Your task to perform on an android device: toggle notifications settings in the gmail app Image 0: 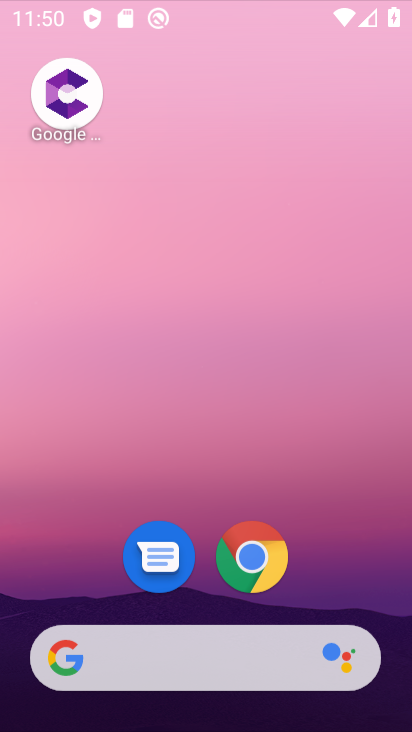
Step 0: drag from (374, 585) to (371, 154)
Your task to perform on an android device: toggle notifications settings in the gmail app Image 1: 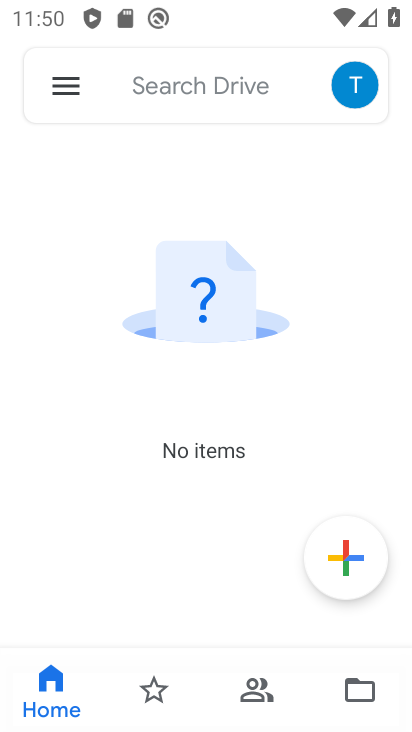
Step 1: press home button
Your task to perform on an android device: toggle notifications settings in the gmail app Image 2: 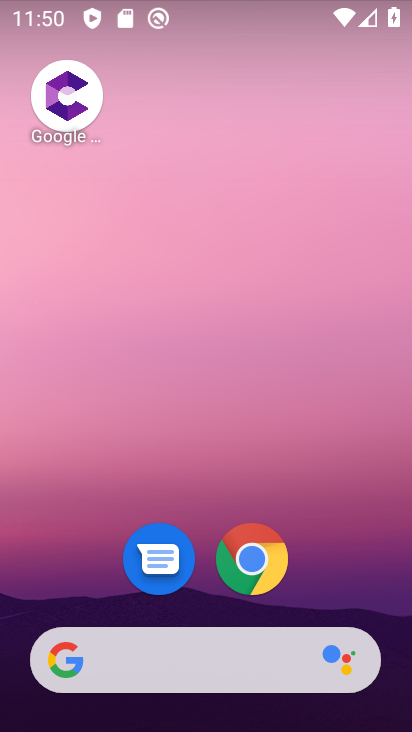
Step 2: drag from (366, 588) to (369, 133)
Your task to perform on an android device: toggle notifications settings in the gmail app Image 3: 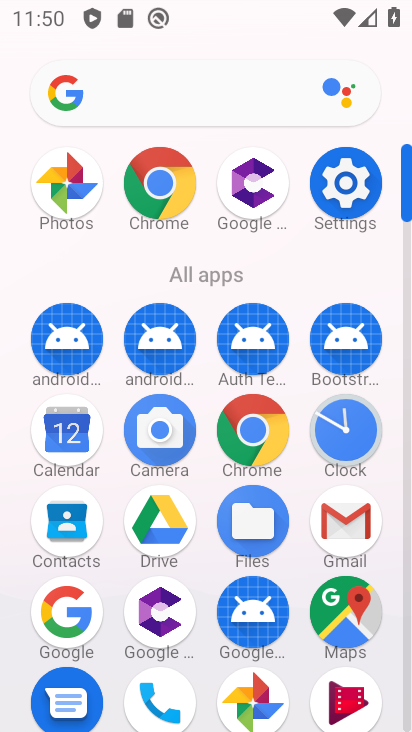
Step 3: click (350, 520)
Your task to perform on an android device: toggle notifications settings in the gmail app Image 4: 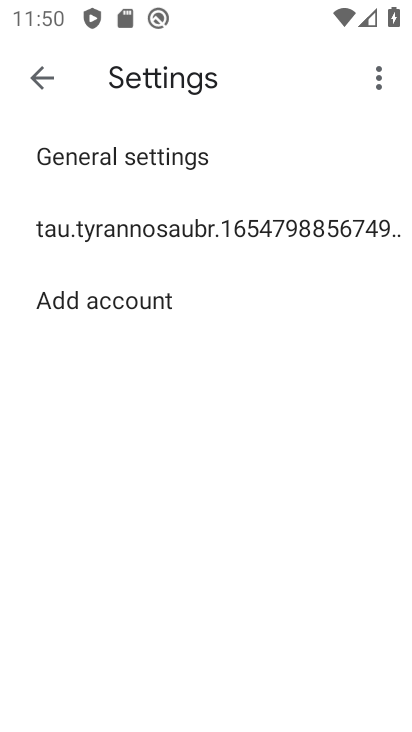
Step 4: click (260, 235)
Your task to perform on an android device: toggle notifications settings in the gmail app Image 5: 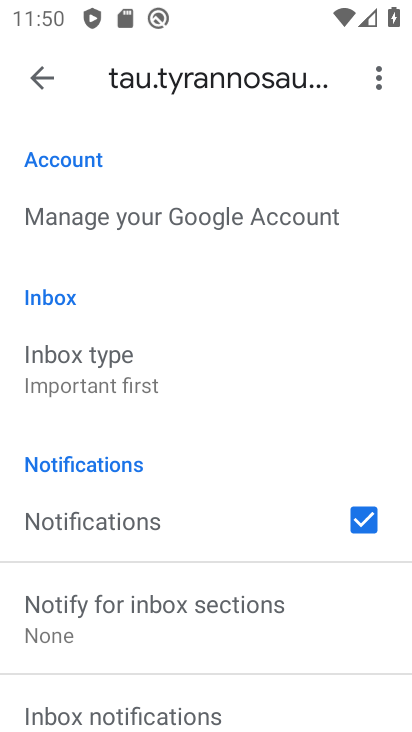
Step 5: drag from (268, 485) to (277, 328)
Your task to perform on an android device: toggle notifications settings in the gmail app Image 6: 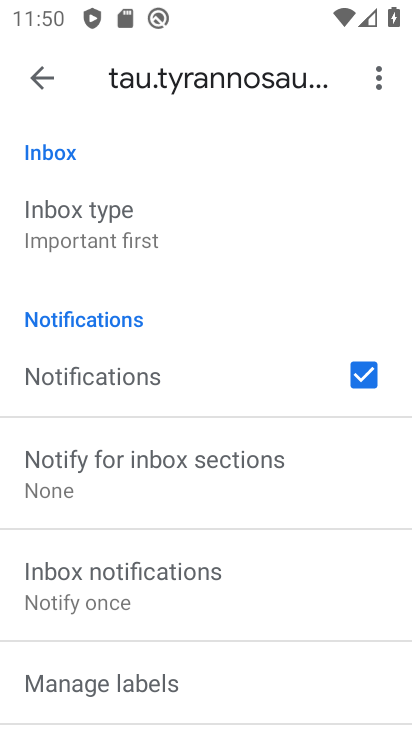
Step 6: drag from (298, 527) to (304, 376)
Your task to perform on an android device: toggle notifications settings in the gmail app Image 7: 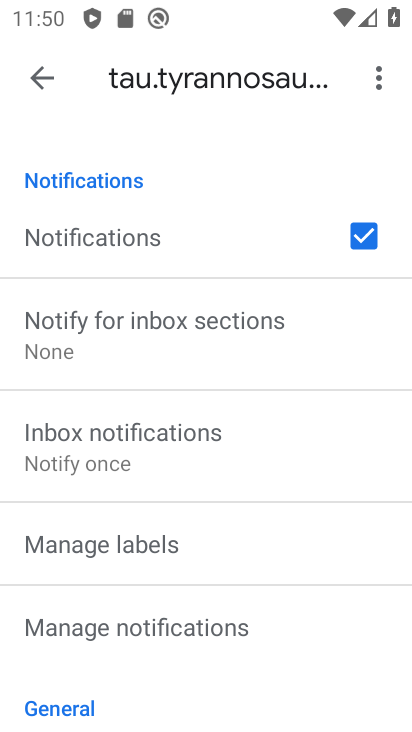
Step 7: drag from (296, 541) to (292, 394)
Your task to perform on an android device: toggle notifications settings in the gmail app Image 8: 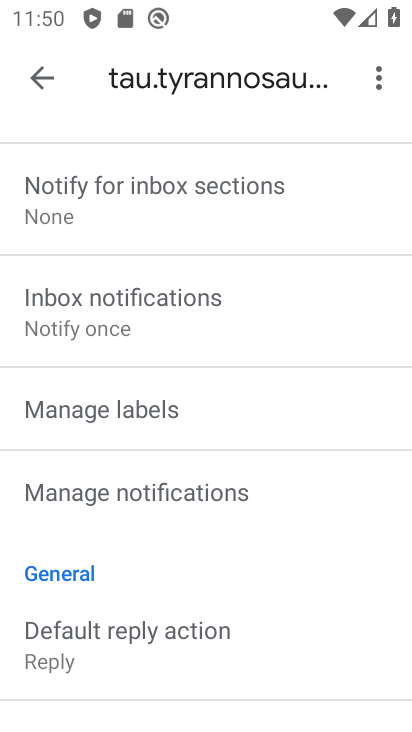
Step 8: drag from (290, 562) to (288, 395)
Your task to perform on an android device: toggle notifications settings in the gmail app Image 9: 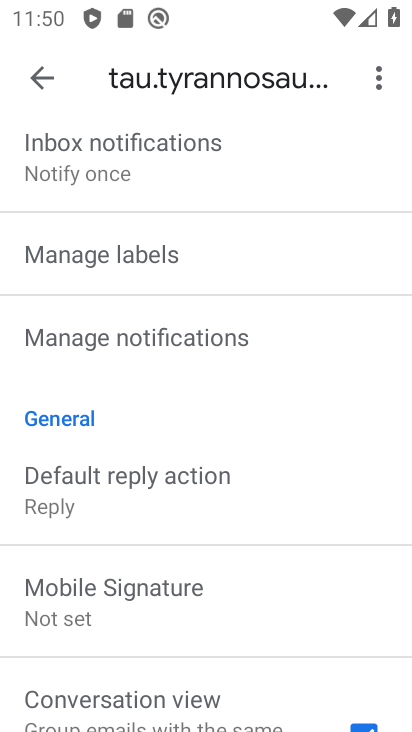
Step 9: drag from (306, 582) to (312, 276)
Your task to perform on an android device: toggle notifications settings in the gmail app Image 10: 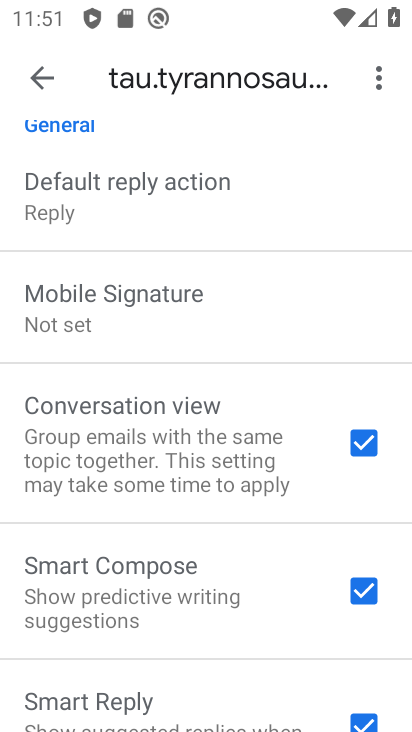
Step 10: drag from (285, 559) to (287, 274)
Your task to perform on an android device: toggle notifications settings in the gmail app Image 11: 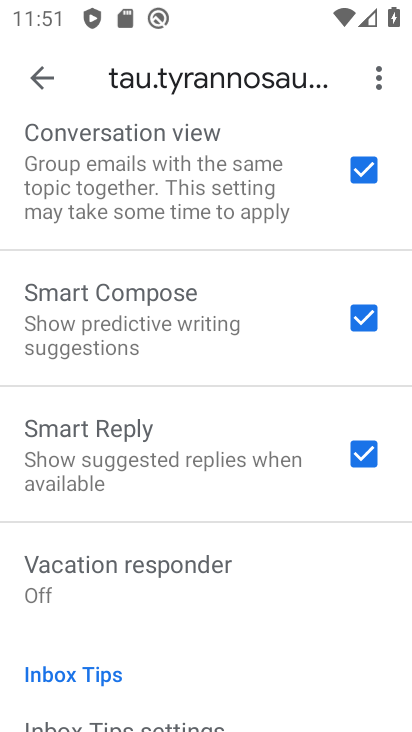
Step 11: drag from (280, 229) to (266, 382)
Your task to perform on an android device: toggle notifications settings in the gmail app Image 12: 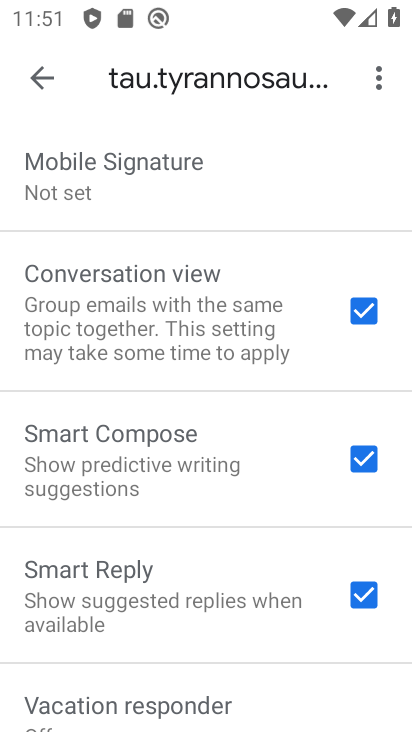
Step 12: drag from (275, 188) to (276, 423)
Your task to perform on an android device: toggle notifications settings in the gmail app Image 13: 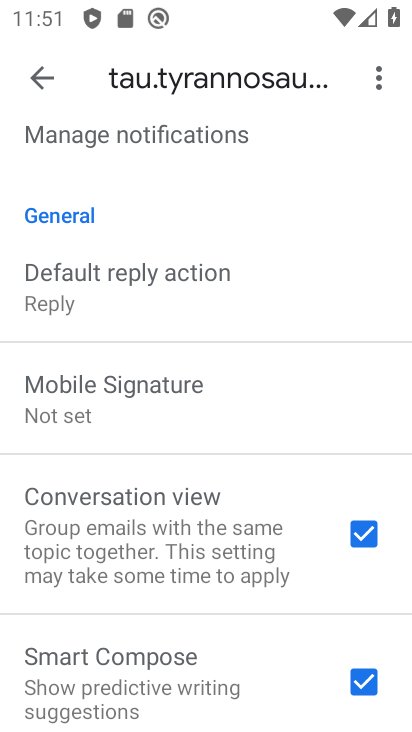
Step 13: drag from (285, 159) to (290, 405)
Your task to perform on an android device: toggle notifications settings in the gmail app Image 14: 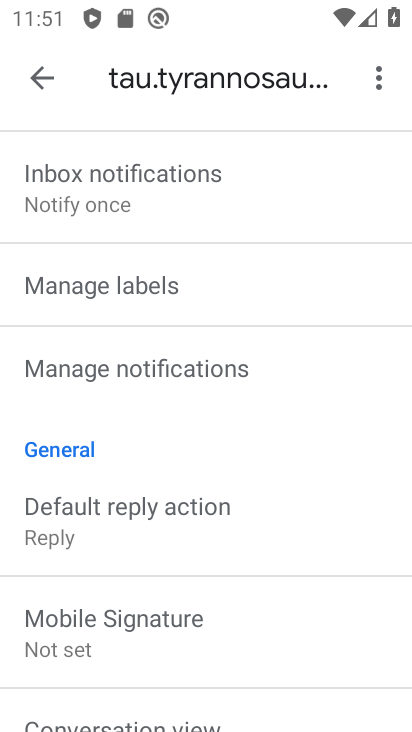
Step 14: drag from (296, 232) to (293, 422)
Your task to perform on an android device: toggle notifications settings in the gmail app Image 15: 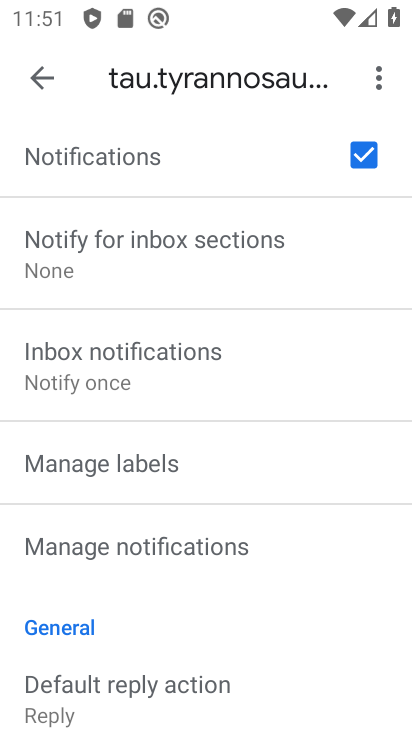
Step 15: drag from (259, 180) to (258, 486)
Your task to perform on an android device: toggle notifications settings in the gmail app Image 16: 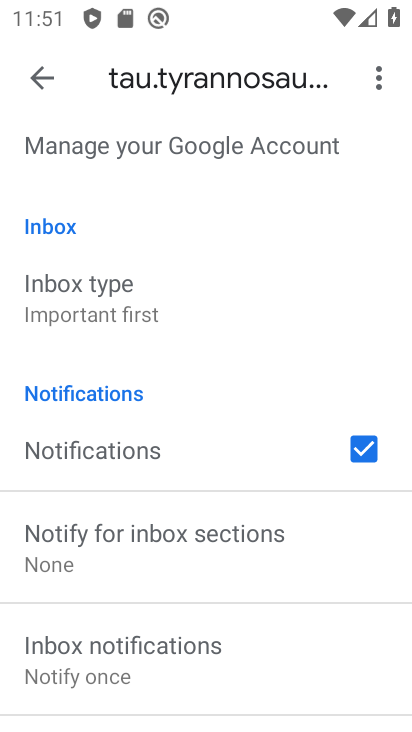
Step 16: drag from (232, 207) to (229, 422)
Your task to perform on an android device: toggle notifications settings in the gmail app Image 17: 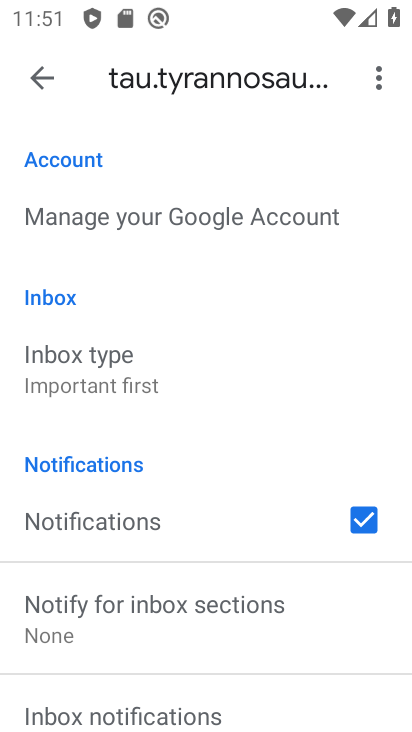
Step 17: drag from (228, 465) to (229, 340)
Your task to perform on an android device: toggle notifications settings in the gmail app Image 18: 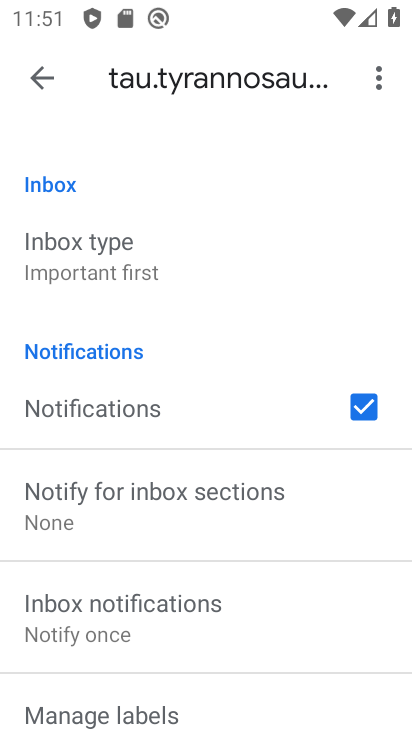
Step 18: drag from (244, 553) to (249, 438)
Your task to perform on an android device: toggle notifications settings in the gmail app Image 19: 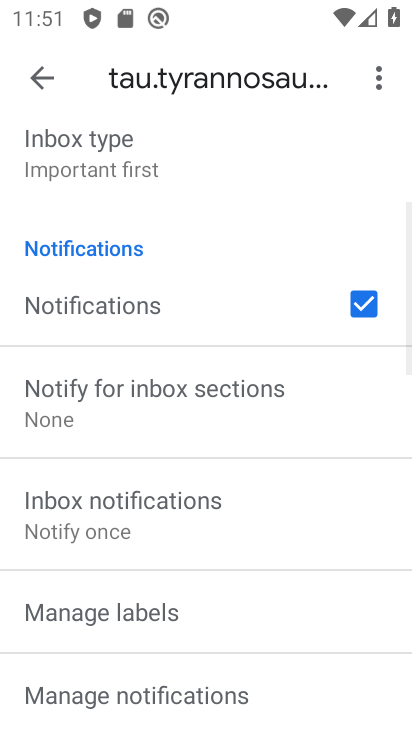
Step 19: drag from (250, 282) to (249, 467)
Your task to perform on an android device: toggle notifications settings in the gmail app Image 20: 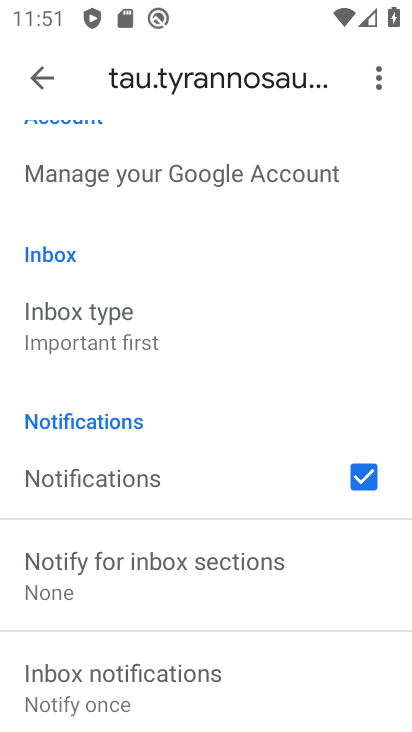
Step 20: drag from (242, 312) to (232, 519)
Your task to perform on an android device: toggle notifications settings in the gmail app Image 21: 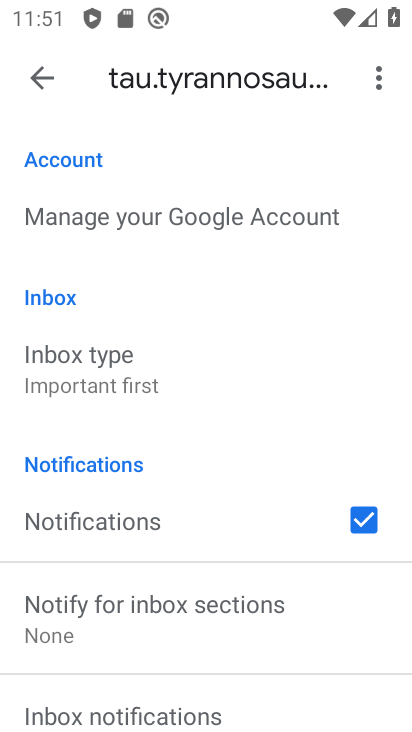
Step 21: drag from (252, 517) to (263, 406)
Your task to perform on an android device: toggle notifications settings in the gmail app Image 22: 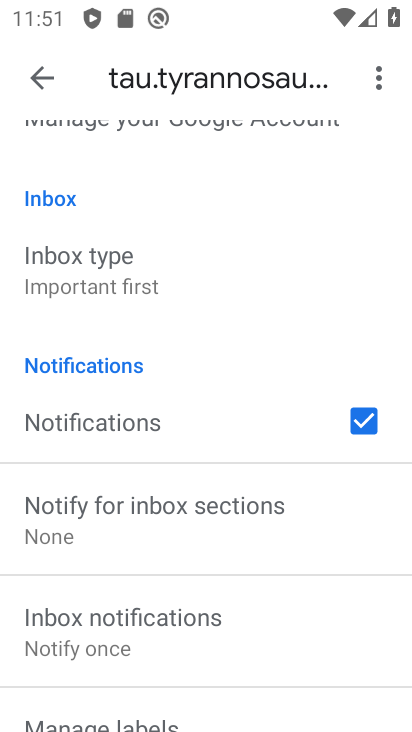
Step 22: drag from (260, 576) to (254, 397)
Your task to perform on an android device: toggle notifications settings in the gmail app Image 23: 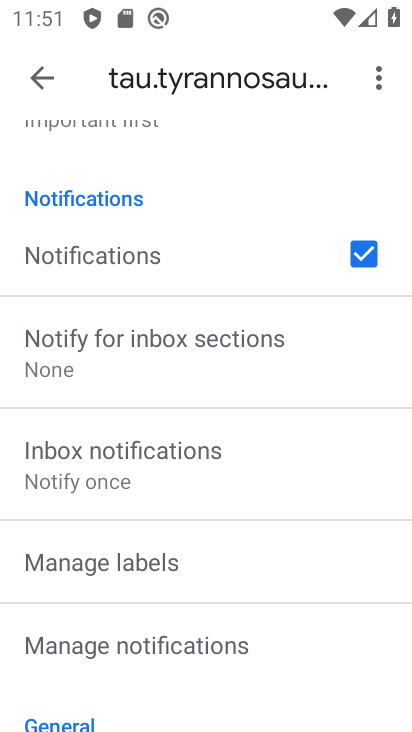
Step 23: drag from (260, 542) to (267, 416)
Your task to perform on an android device: toggle notifications settings in the gmail app Image 24: 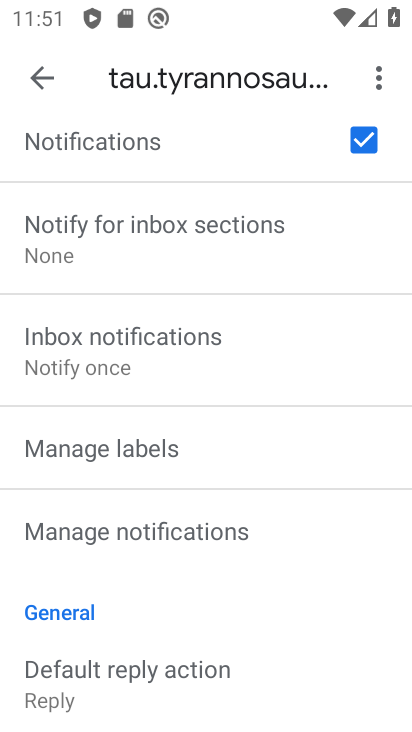
Step 24: drag from (257, 492) to (257, 377)
Your task to perform on an android device: toggle notifications settings in the gmail app Image 25: 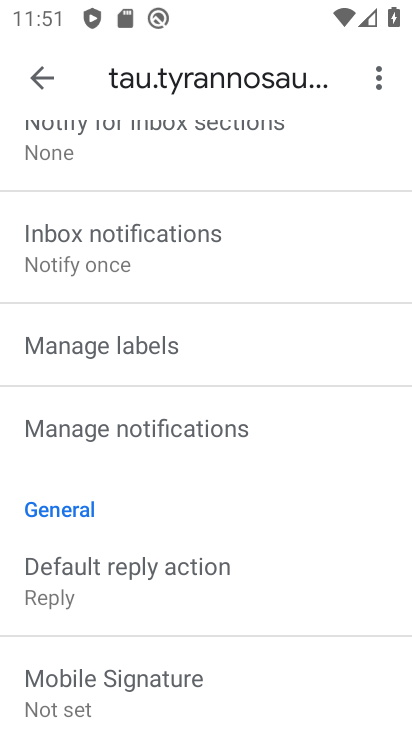
Step 25: drag from (281, 500) to (283, 387)
Your task to perform on an android device: toggle notifications settings in the gmail app Image 26: 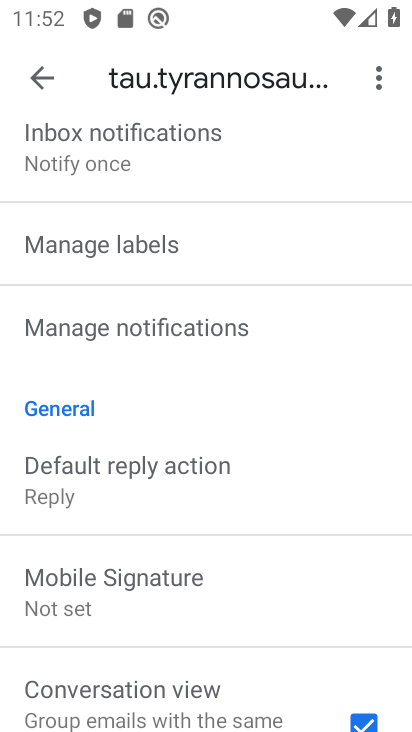
Step 26: click (219, 326)
Your task to perform on an android device: toggle notifications settings in the gmail app Image 27: 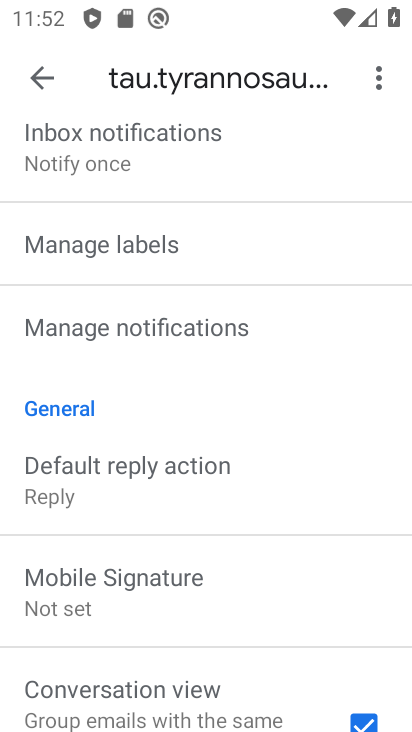
Step 27: click (178, 336)
Your task to perform on an android device: toggle notifications settings in the gmail app Image 28: 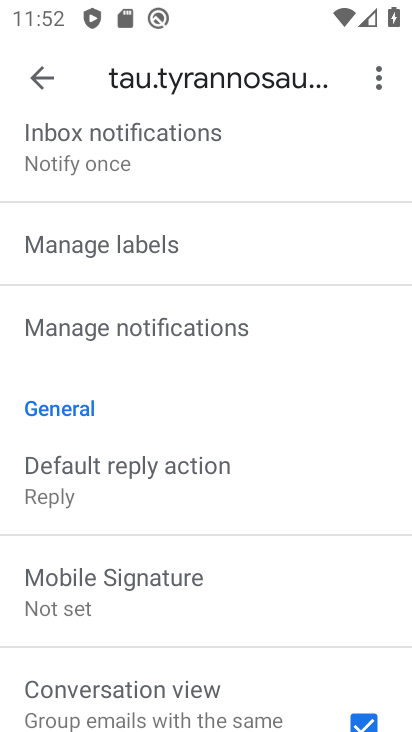
Step 28: click (177, 332)
Your task to perform on an android device: toggle notifications settings in the gmail app Image 29: 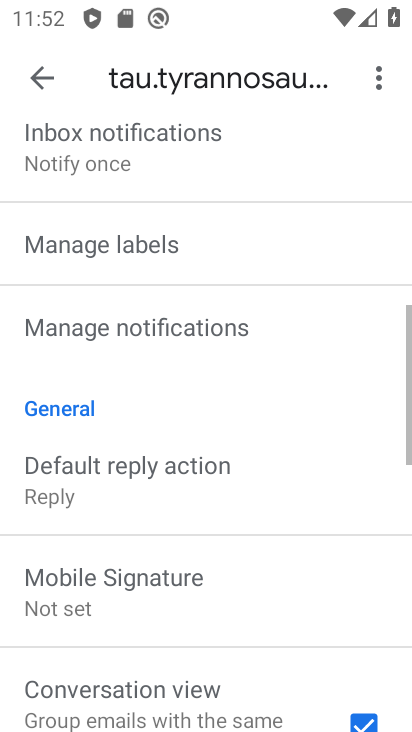
Step 29: click (177, 332)
Your task to perform on an android device: toggle notifications settings in the gmail app Image 30: 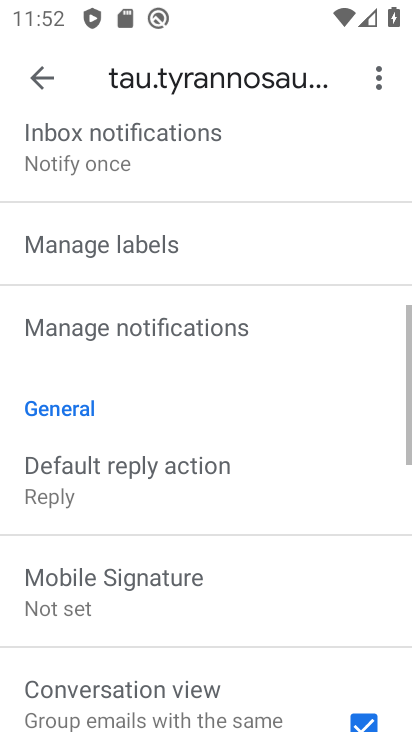
Step 30: drag from (354, 503) to (355, 235)
Your task to perform on an android device: toggle notifications settings in the gmail app Image 31: 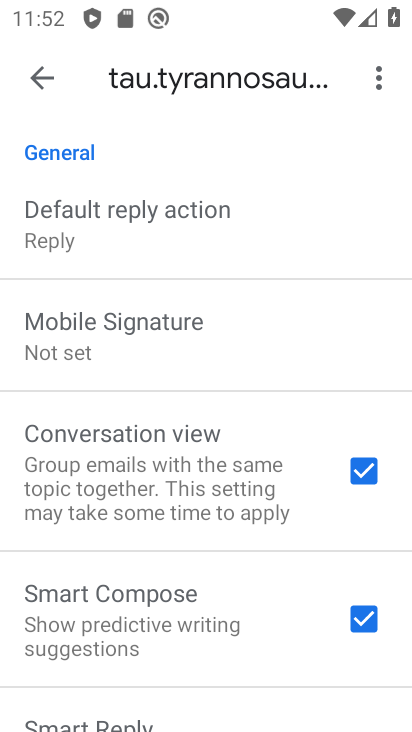
Step 31: drag from (288, 214) to (282, 494)
Your task to perform on an android device: toggle notifications settings in the gmail app Image 32: 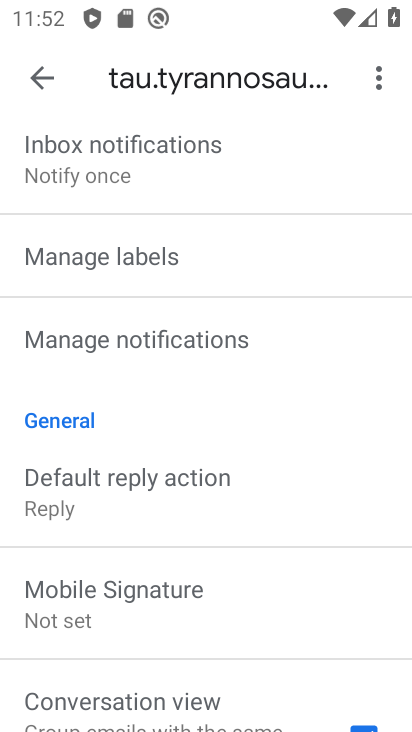
Step 32: click (173, 340)
Your task to perform on an android device: toggle notifications settings in the gmail app Image 33: 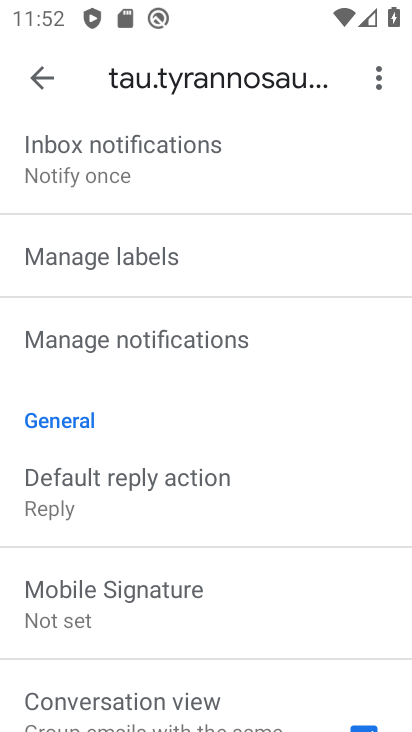
Step 33: task complete